Your task to perform on an android device: check google app version Image 0: 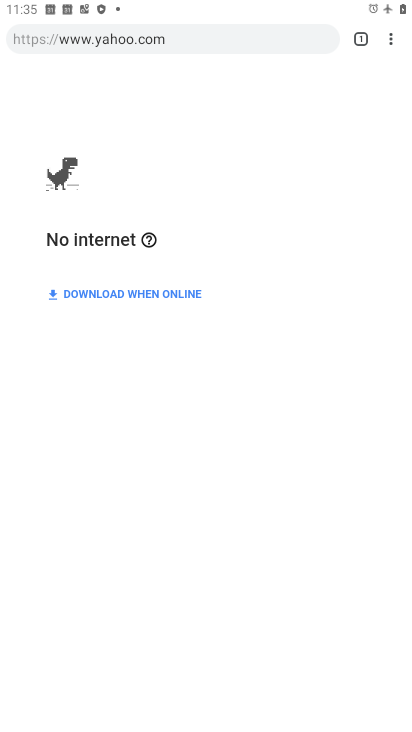
Step 0: press home button
Your task to perform on an android device: check google app version Image 1: 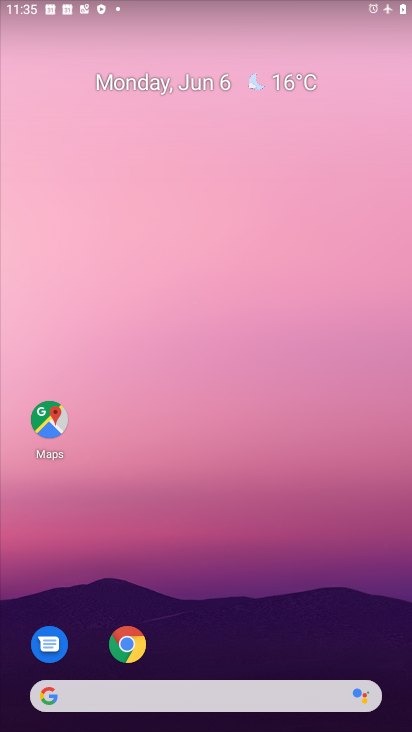
Step 1: drag from (245, 572) to (293, 22)
Your task to perform on an android device: check google app version Image 2: 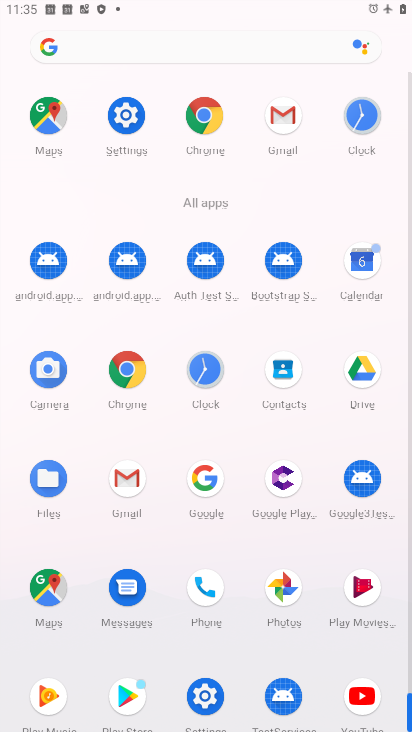
Step 2: drag from (250, 208) to (254, 60)
Your task to perform on an android device: check google app version Image 3: 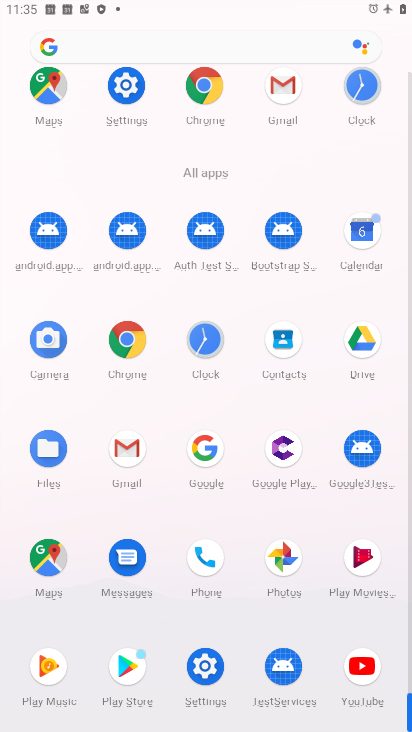
Step 3: click (208, 462)
Your task to perform on an android device: check google app version Image 4: 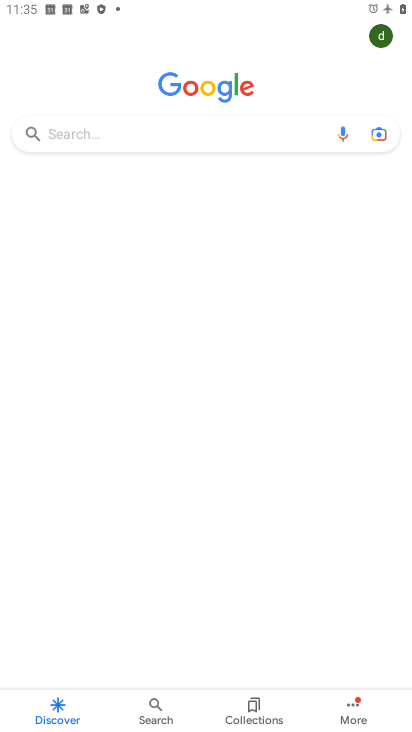
Step 4: click (364, 714)
Your task to perform on an android device: check google app version Image 5: 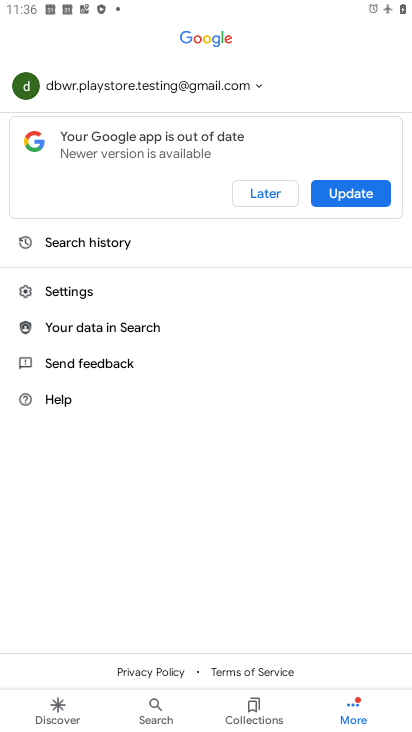
Step 5: click (111, 288)
Your task to perform on an android device: check google app version Image 6: 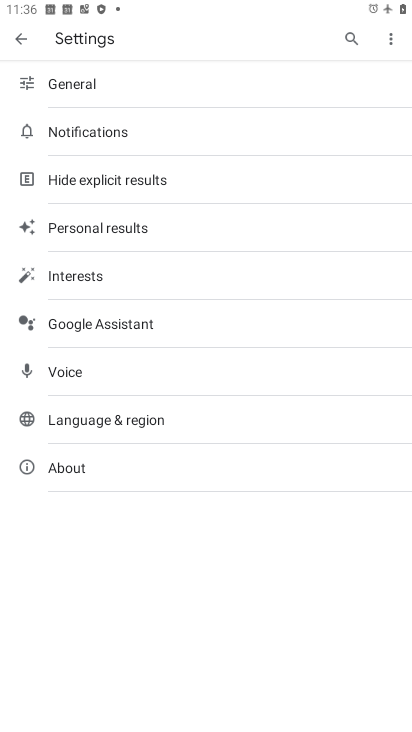
Step 6: click (154, 481)
Your task to perform on an android device: check google app version Image 7: 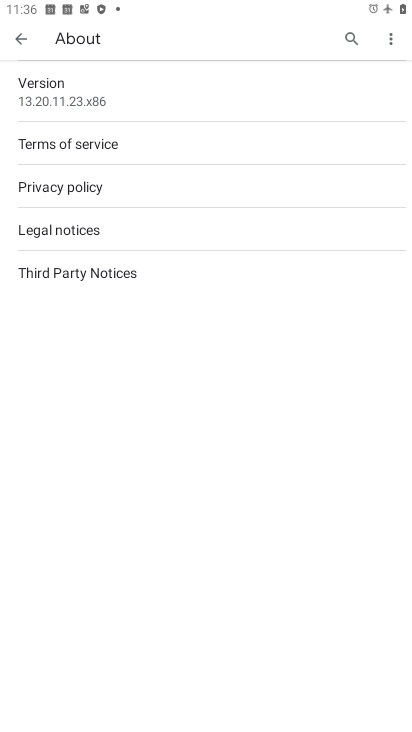
Step 7: task complete